Your task to perform on an android device: open app "Facebook Messenger" Image 0: 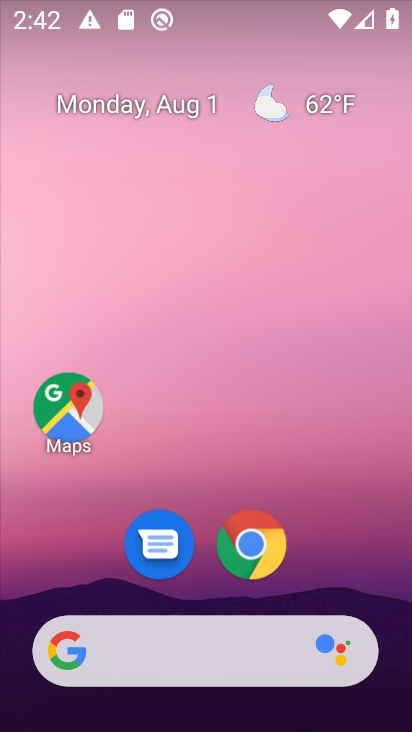
Step 0: drag from (336, 537) to (182, 14)
Your task to perform on an android device: open app "Facebook Messenger" Image 1: 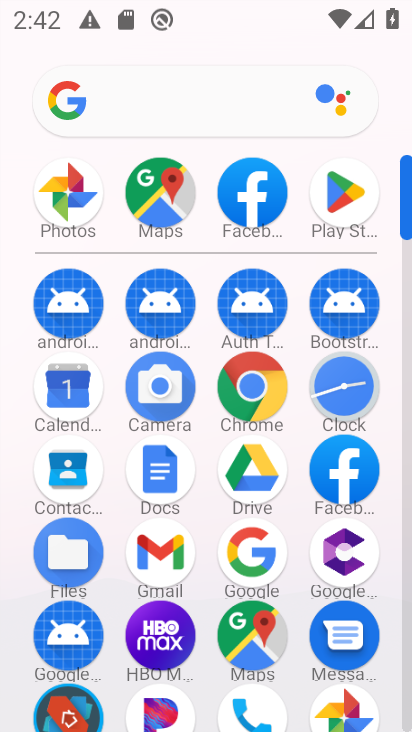
Step 1: click (350, 190)
Your task to perform on an android device: open app "Facebook Messenger" Image 2: 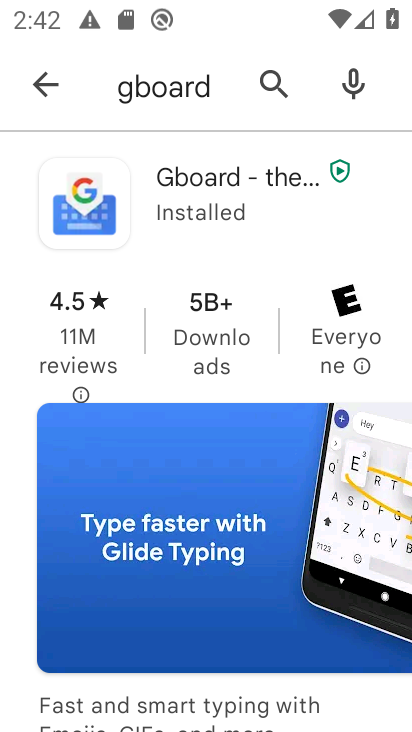
Step 2: press back button
Your task to perform on an android device: open app "Facebook Messenger" Image 3: 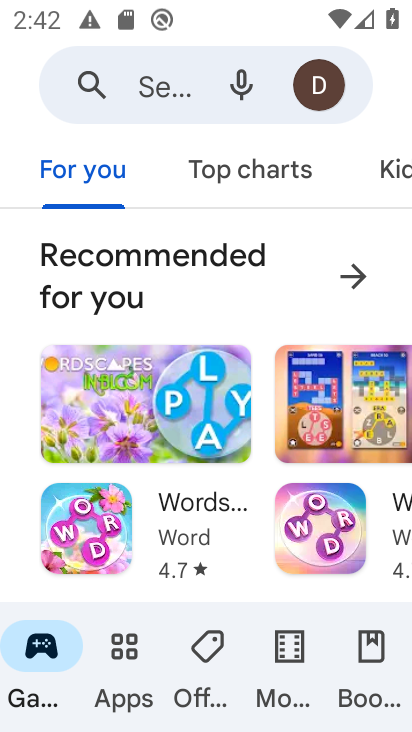
Step 3: click (148, 92)
Your task to perform on an android device: open app "Facebook Messenger" Image 4: 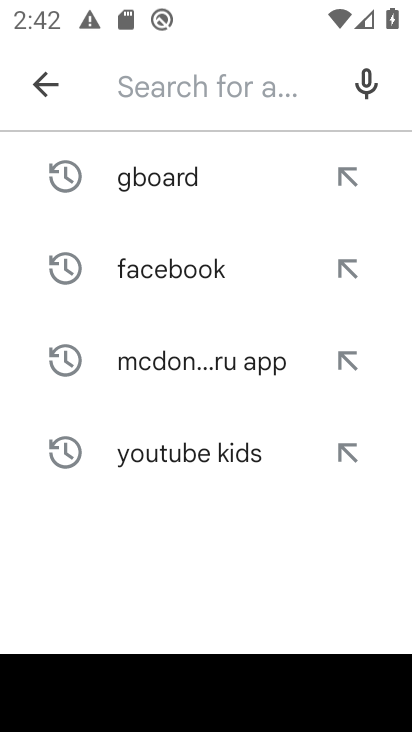
Step 4: type "Facebook Messenger"
Your task to perform on an android device: open app "Facebook Messenger" Image 5: 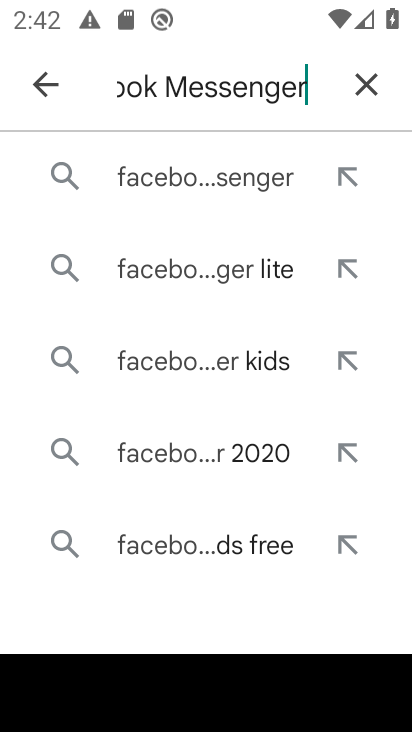
Step 5: click (210, 194)
Your task to perform on an android device: open app "Facebook Messenger" Image 6: 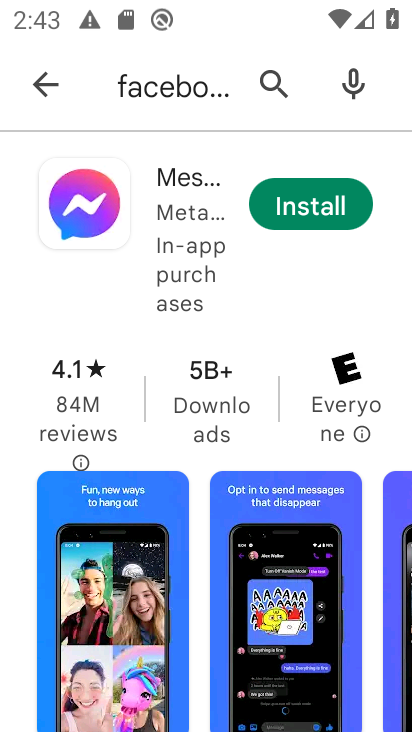
Step 6: task complete